Your task to perform on an android device: open app "Gmail" (install if not already installed), go to login, and select forgot password Image 0: 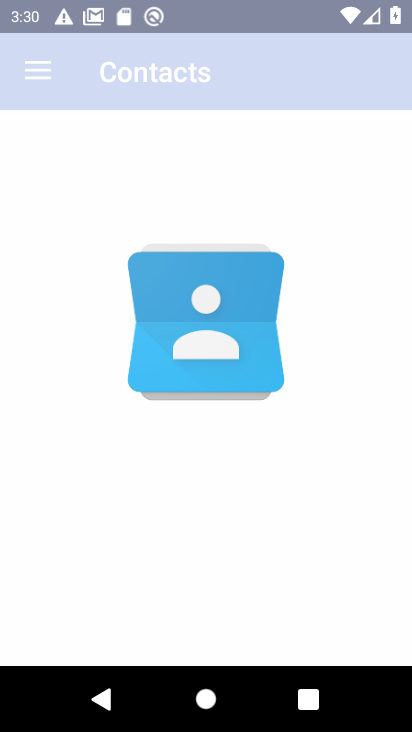
Step 0: drag from (115, 556) to (152, 7)
Your task to perform on an android device: open app "Gmail" (install if not already installed), go to login, and select forgot password Image 1: 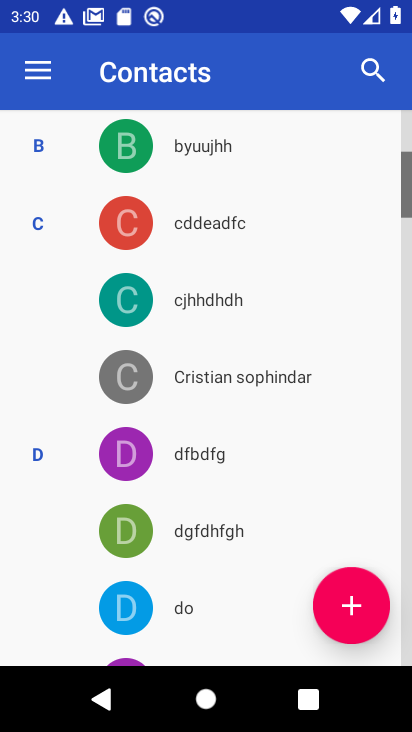
Step 1: press home button
Your task to perform on an android device: open app "Gmail" (install if not already installed), go to login, and select forgot password Image 2: 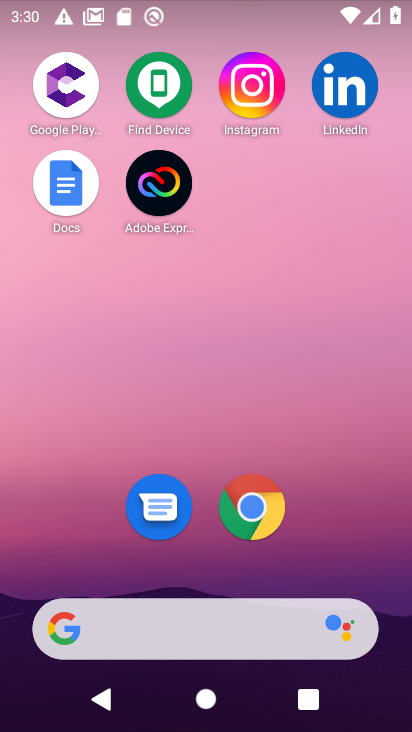
Step 2: drag from (197, 524) to (265, 12)
Your task to perform on an android device: open app "Gmail" (install if not already installed), go to login, and select forgot password Image 3: 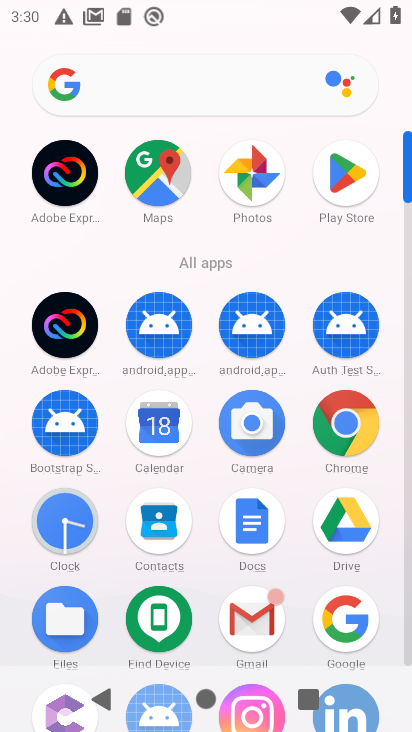
Step 3: click (352, 220)
Your task to perform on an android device: open app "Gmail" (install if not already installed), go to login, and select forgot password Image 4: 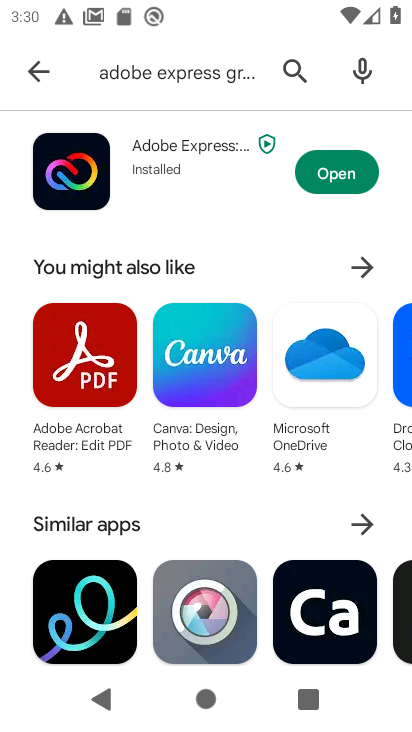
Step 4: click (300, 57)
Your task to perform on an android device: open app "Gmail" (install if not already installed), go to login, and select forgot password Image 5: 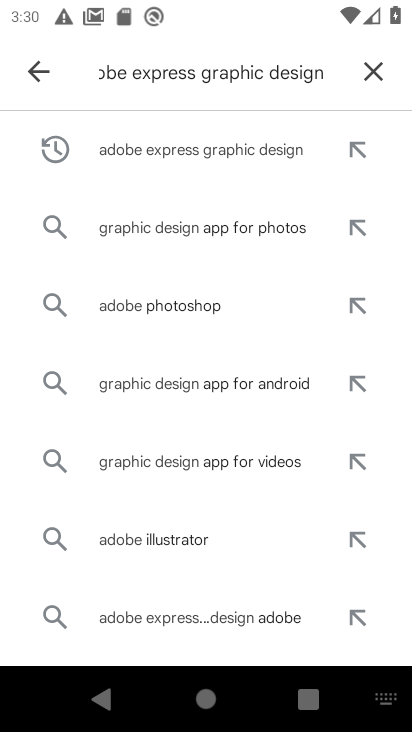
Step 5: click (366, 64)
Your task to perform on an android device: open app "Gmail" (install if not already installed), go to login, and select forgot password Image 6: 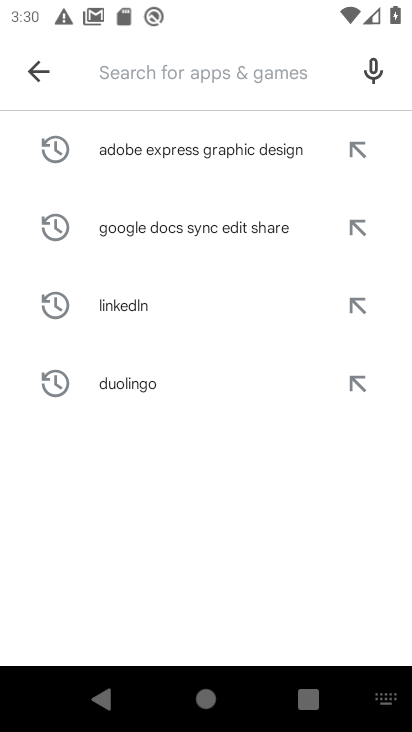
Step 6: type "gmail"
Your task to perform on an android device: open app "Gmail" (install if not already installed), go to login, and select forgot password Image 7: 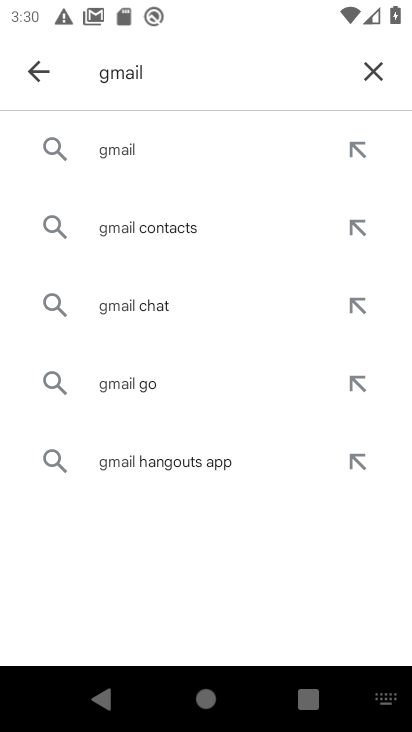
Step 7: click (134, 144)
Your task to perform on an android device: open app "Gmail" (install if not already installed), go to login, and select forgot password Image 8: 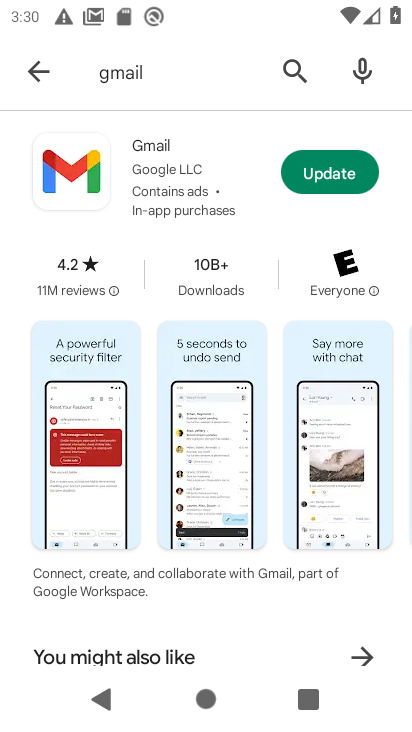
Step 8: click (192, 172)
Your task to perform on an android device: open app "Gmail" (install if not already installed), go to login, and select forgot password Image 9: 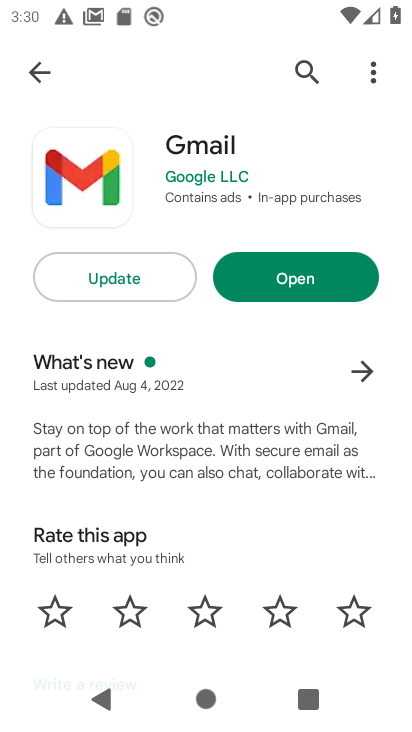
Step 9: click (284, 290)
Your task to perform on an android device: open app "Gmail" (install if not already installed), go to login, and select forgot password Image 10: 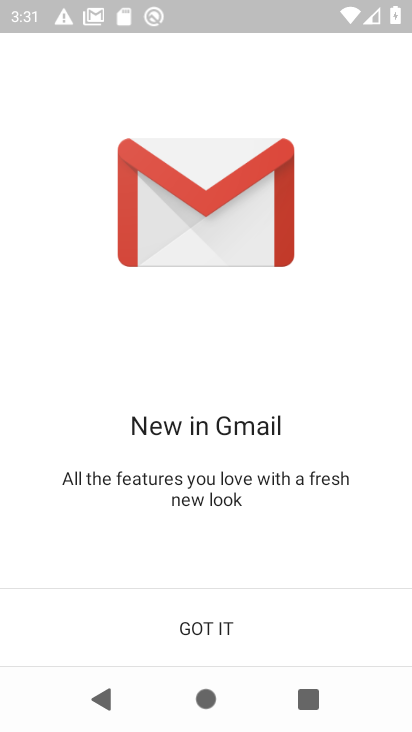
Step 10: click (194, 628)
Your task to perform on an android device: open app "Gmail" (install if not already installed), go to login, and select forgot password Image 11: 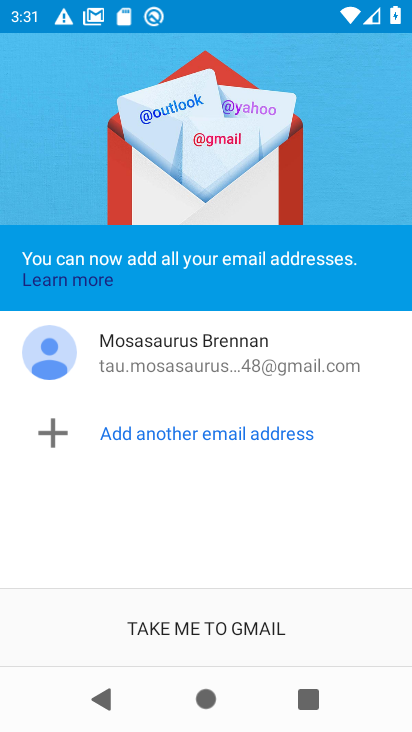
Step 11: click (163, 435)
Your task to perform on an android device: open app "Gmail" (install if not already installed), go to login, and select forgot password Image 12: 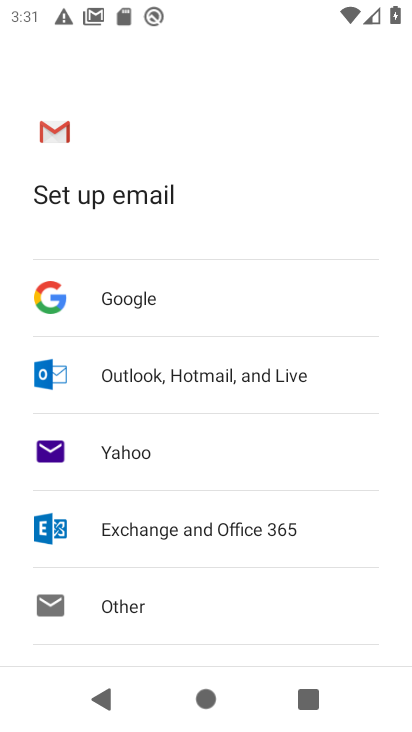
Step 12: click (132, 612)
Your task to perform on an android device: open app "Gmail" (install if not already installed), go to login, and select forgot password Image 13: 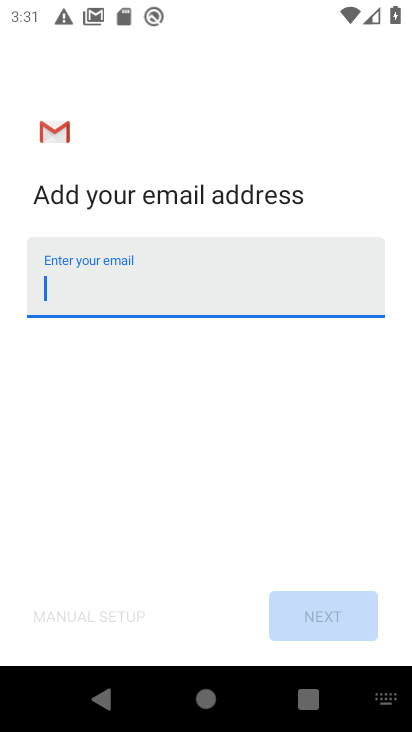
Step 13: click (123, 300)
Your task to perform on an android device: open app "Gmail" (install if not already installed), go to login, and select forgot password Image 14: 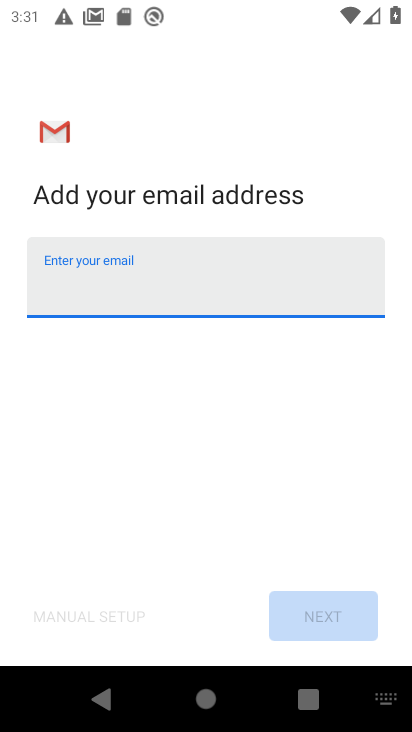
Step 14: task complete